Your task to perform on an android device: Open Maps and search for coffee Image 0: 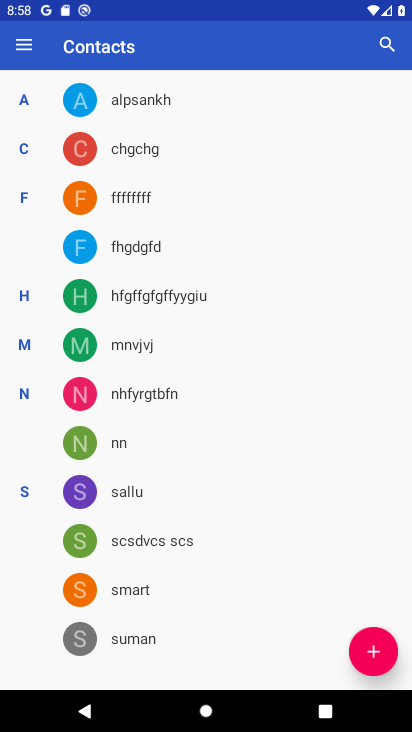
Step 0: press back button
Your task to perform on an android device: Open Maps and search for coffee Image 1: 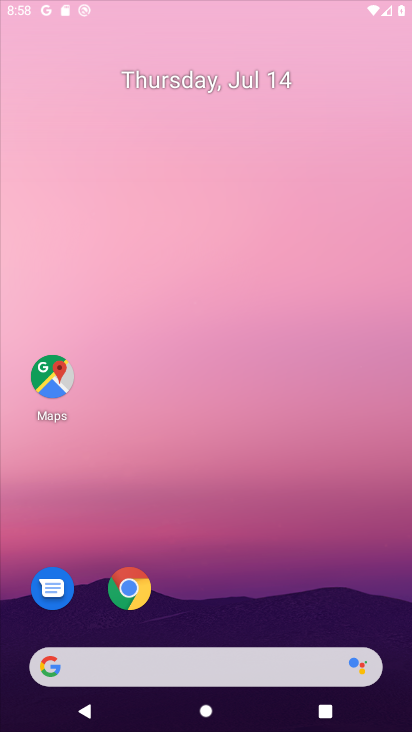
Step 1: press home button
Your task to perform on an android device: Open Maps and search for coffee Image 2: 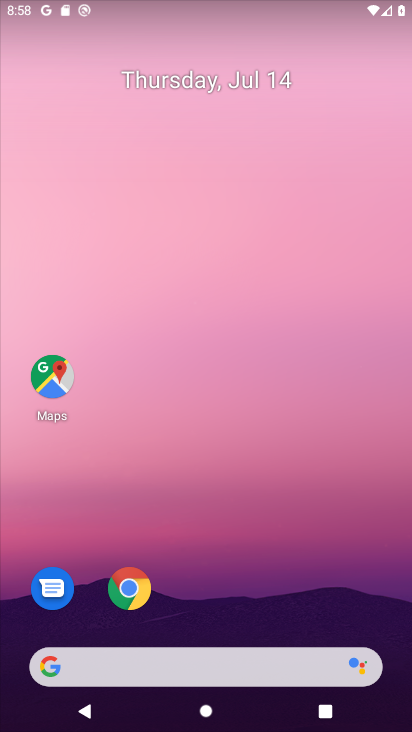
Step 2: drag from (284, 644) to (264, 167)
Your task to perform on an android device: Open Maps and search for coffee Image 3: 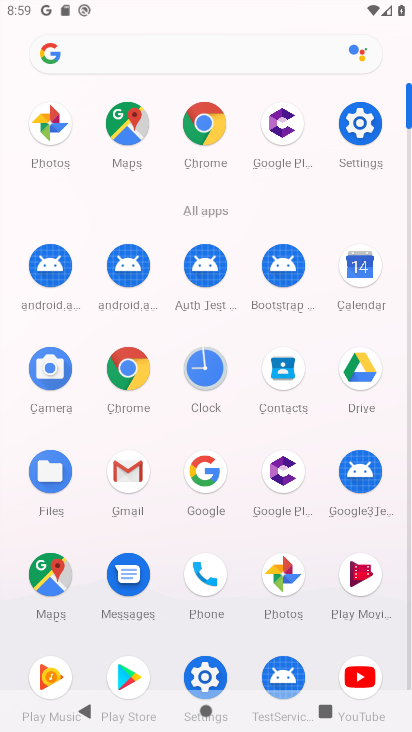
Step 3: click (58, 574)
Your task to perform on an android device: Open Maps and search for coffee Image 4: 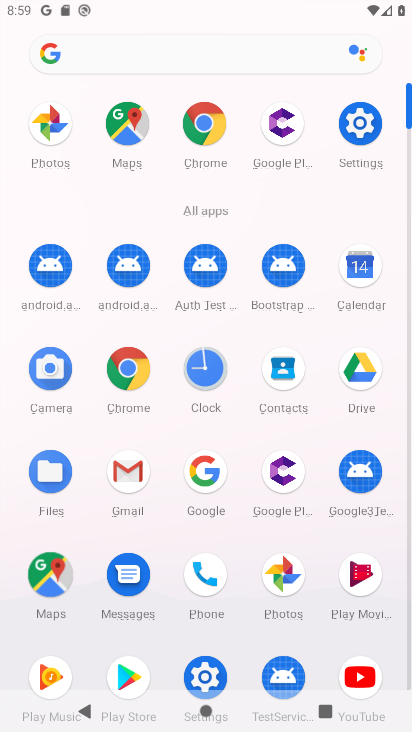
Step 4: click (58, 574)
Your task to perform on an android device: Open Maps and search for coffee Image 5: 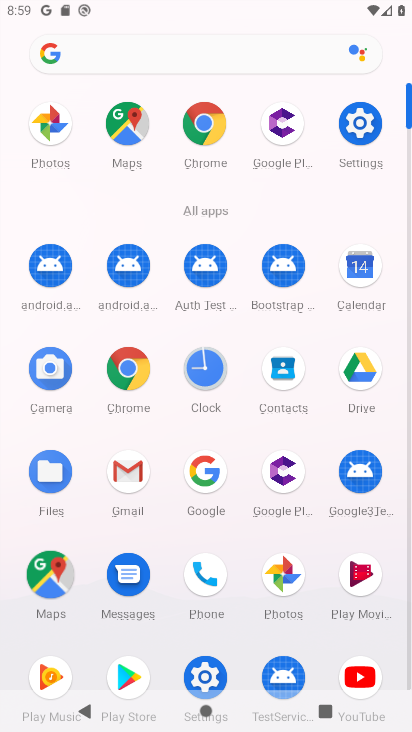
Step 5: click (57, 574)
Your task to perform on an android device: Open Maps and search for coffee Image 6: 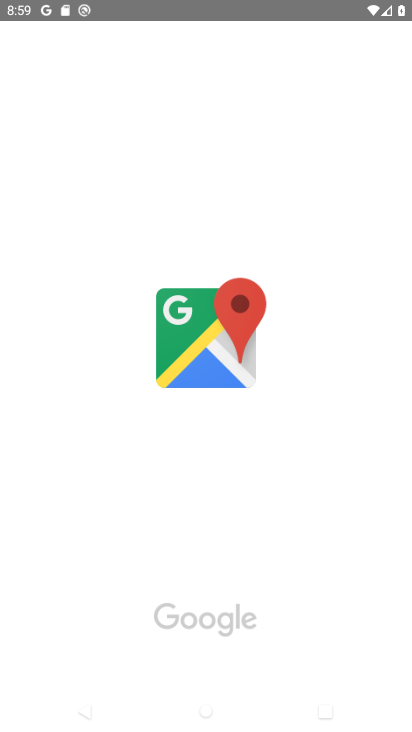
Step 6: click (57, 574)
Your task to perform on an android device: Open Maps and search for coffee Image 7: 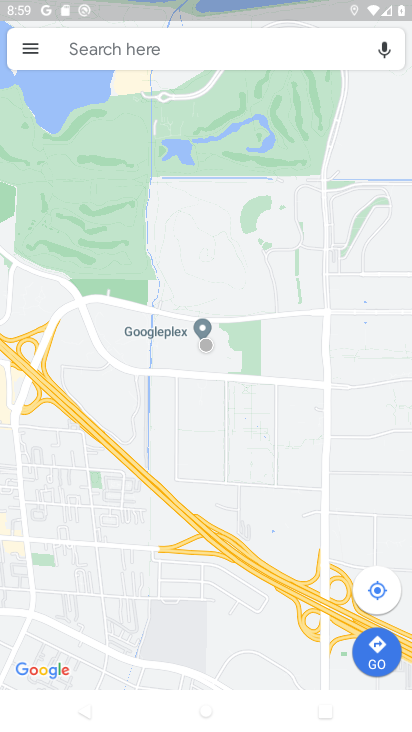
Step 7: click (87, 33)
Your task to perform on an android device: Open Maps and search for coffee Image 8: 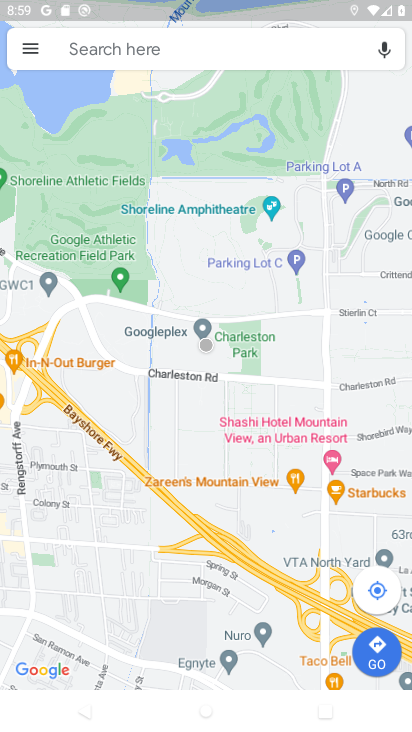
Step 8: click (82, 51)
Your task to perform on an android device: Open Maps and search for coffee Image 9: 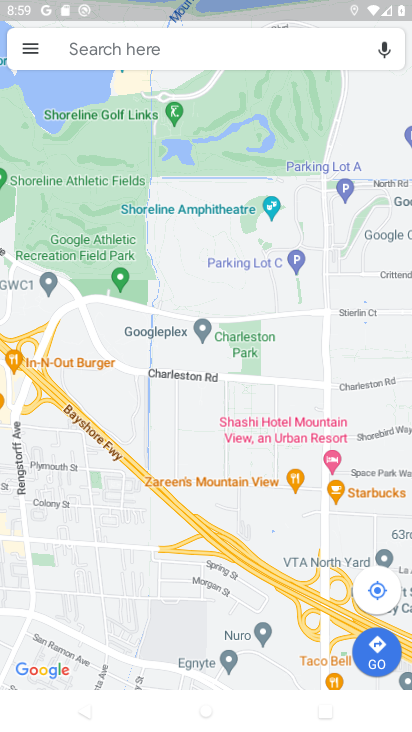
Step 9: click (81, 52)
Your task to perform on an android device: Open Maps and search for coffee Image 10: 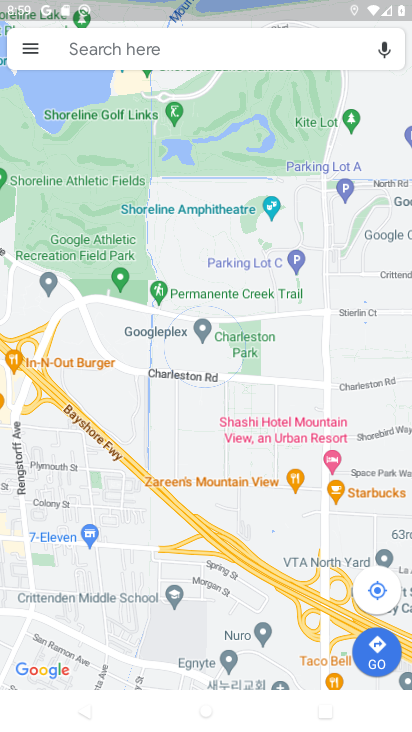
Step 10: click (83, 51)
Your task to perform on an android device: Open Maps and search for coffee Image 11: 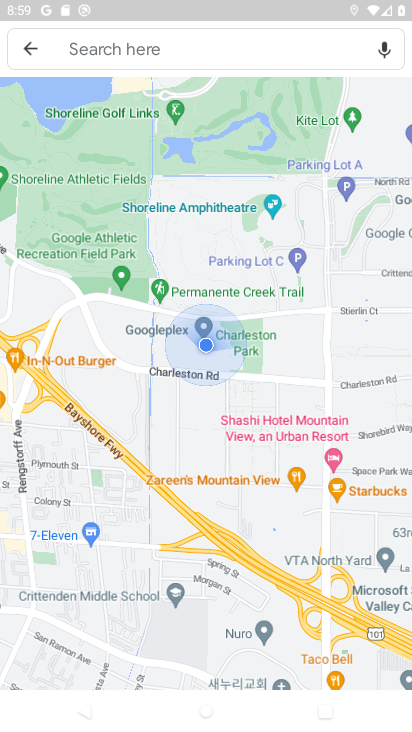
Step 11: click (85, 51)
Your task to perform on an android device: Open Maps and search for coffee Image 12: 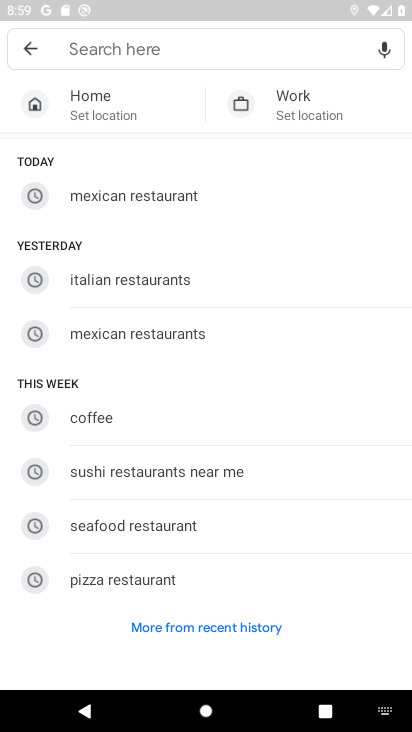
Step 12: click (103, 428)
Your task to perform on an android device: Open Maps and search for coffee Image 13: 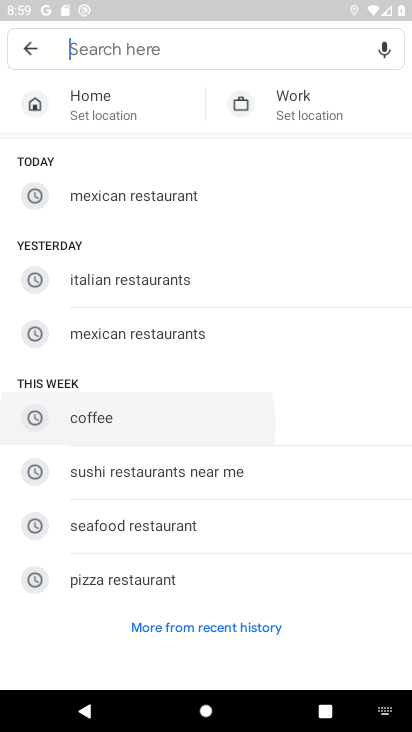
Step 13: click (103, 427)
Your task to perform on an android device: Open Maps and search for coffee Image 14: 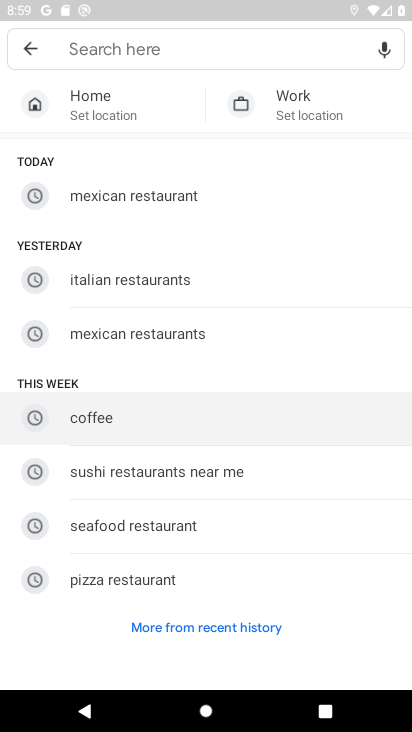
Step 14: click (104, 423)
Your task to perform on an android device: Open Maps and search for coffee Image 15: 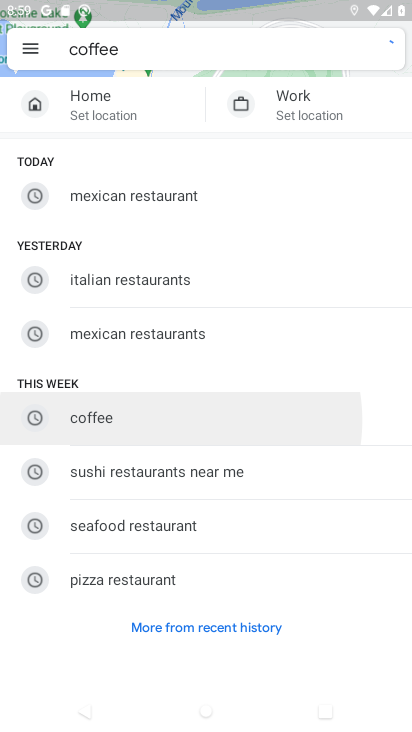
Step 15: click (104, 423)
Your task to perform on an android device: Open Maps and search for coffee Image 16: 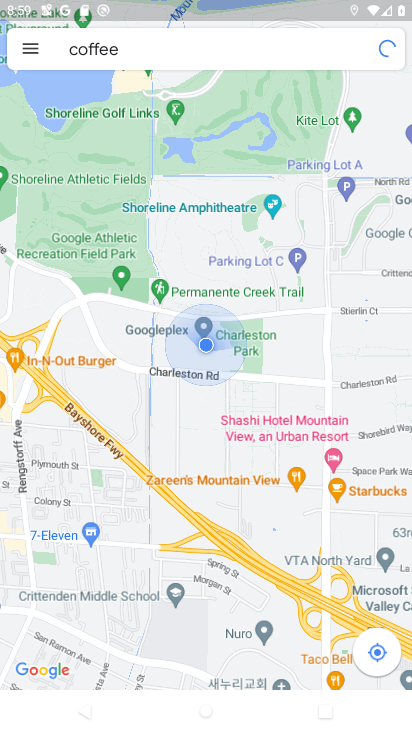
Step 16: task complete